Your task to perform on an android device: Show me popular games on the Play Store Image 0: 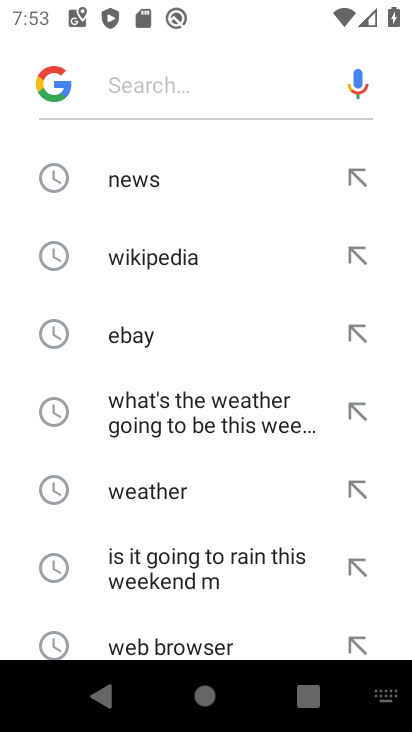
Step 0: press home button
Your task to perform on an android device: Show me popular games on the Play Store Image 1: 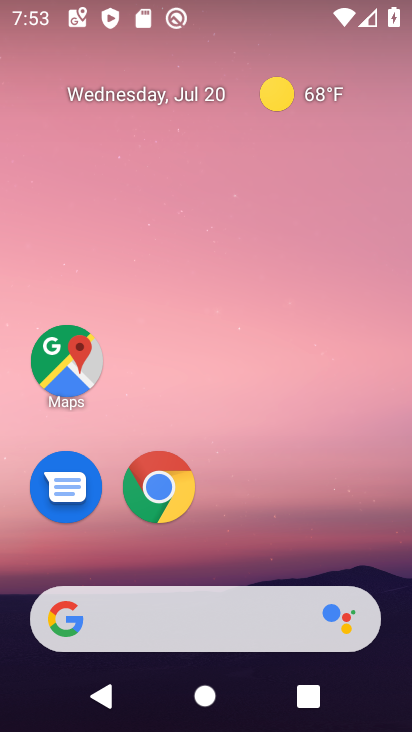
Step 1: drag from (358, 529) to (377, 66)
Your task to perform on an android device: Show me popular games on the Play Store Image 2: 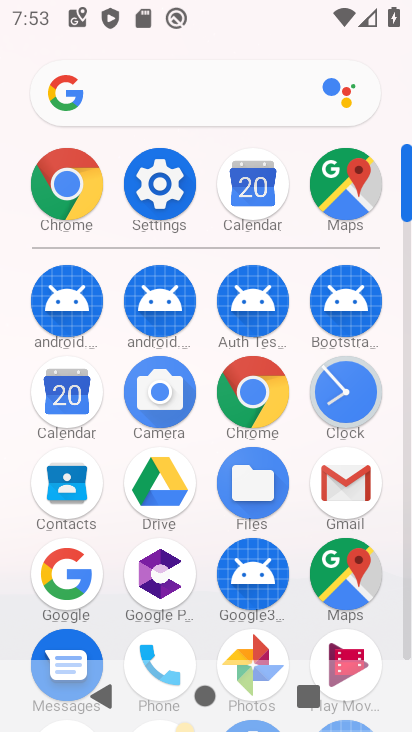
Step 2: drag from (404, 563) to (408, 378)
Your task to perform on an android device: Show me popular games on the Play Store Image 3: 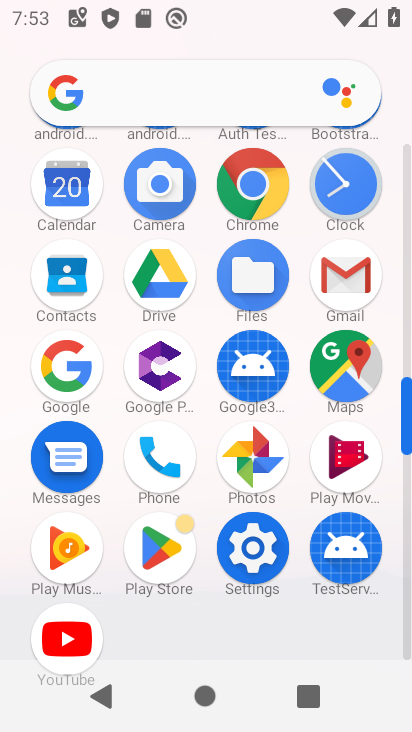
Step 3: click (164, 555)
Your task to perform on an android device: Show me popular games on the Play Store Image 4: 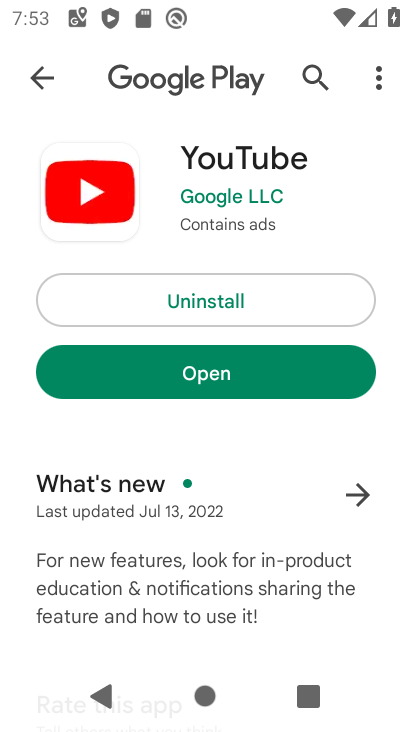
Step 4: press back button
Your task to perform on an android device: Show me popular games on the Play Store Image 5: 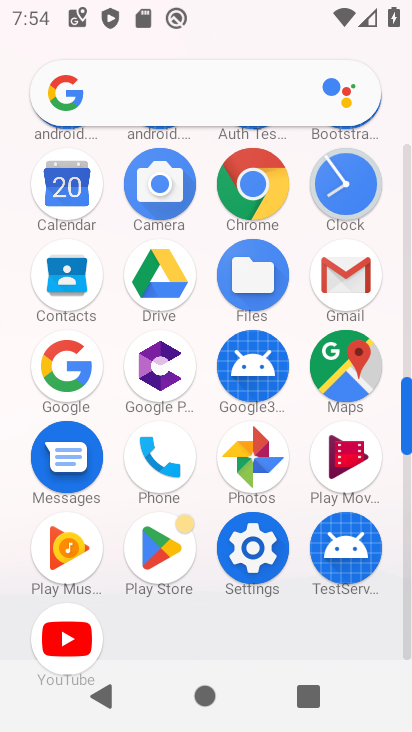
Step 5: click (174, 563)
Your task to perform on an android device: Show me popular games on the Play Store Image 6: 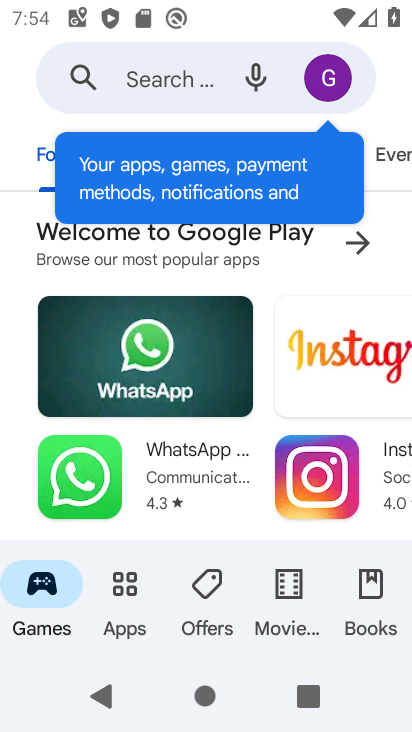
Step 6: task complete